Your task to perform on an android device: open app "NewsBreak: Local News & Alerts" (install if not already installed) and go to login screen Image 0: 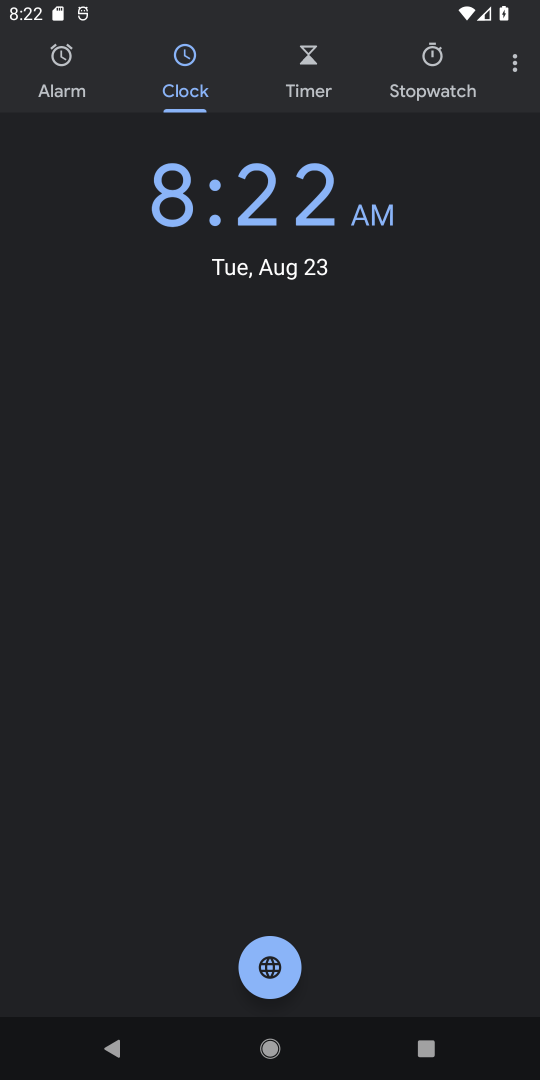
Step 0: press home button
Your task to perform on an android device: open app "NewsBreak: Local News & Alerts" (install if not already installed) and go to login screen Image 1: 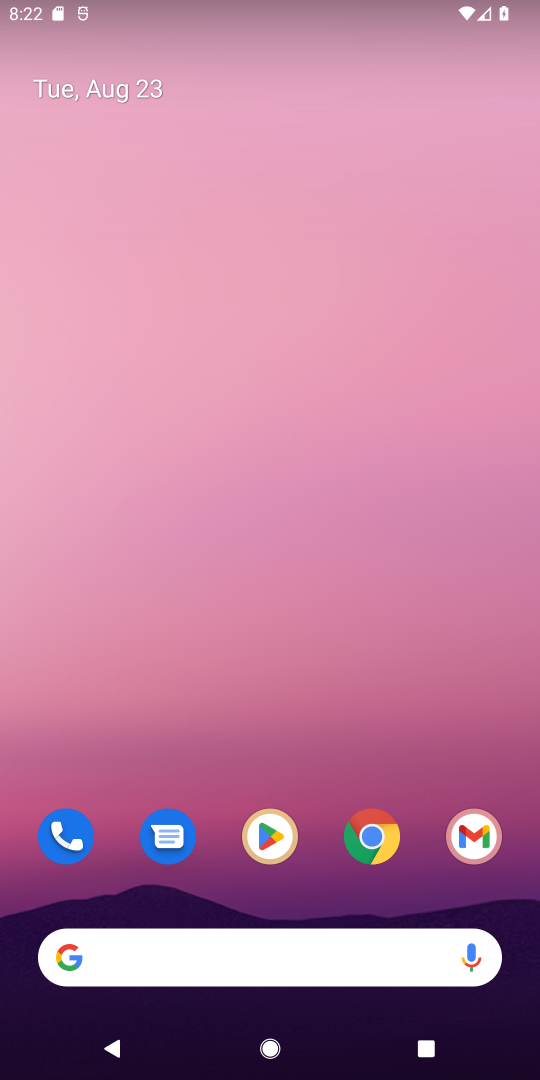
Step 1: click (265, 827)
Your task to perform on an android device: open app "NewsBreak: Local News & Alerts" (install if not already installed) and go to login screen Image 2: 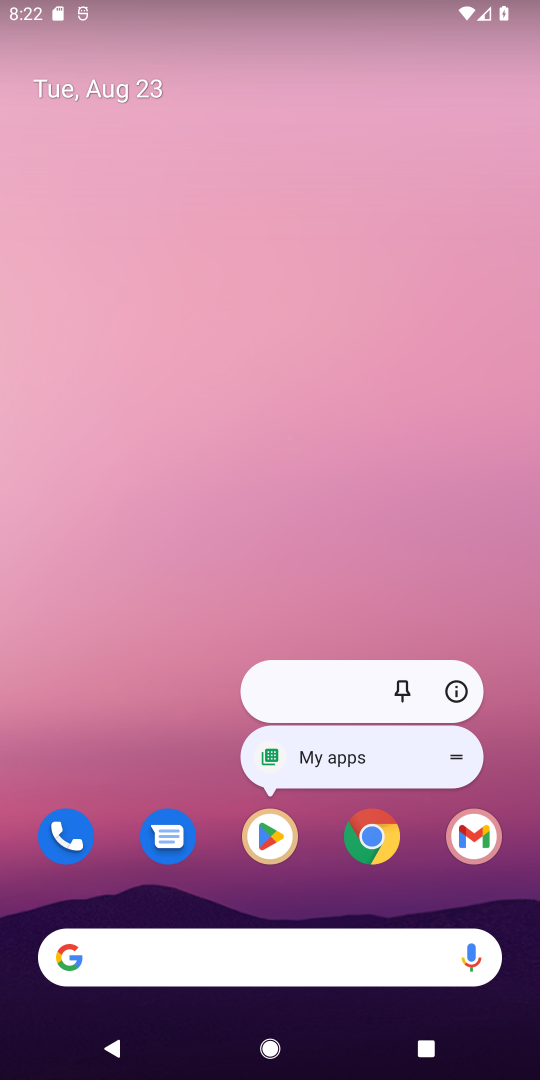
Step 2: click (265, 835)
Your task to perform on an android device: open app "NewsBreak: Local News & Alerts" (install if not already installed) and go to login screen Image 3: 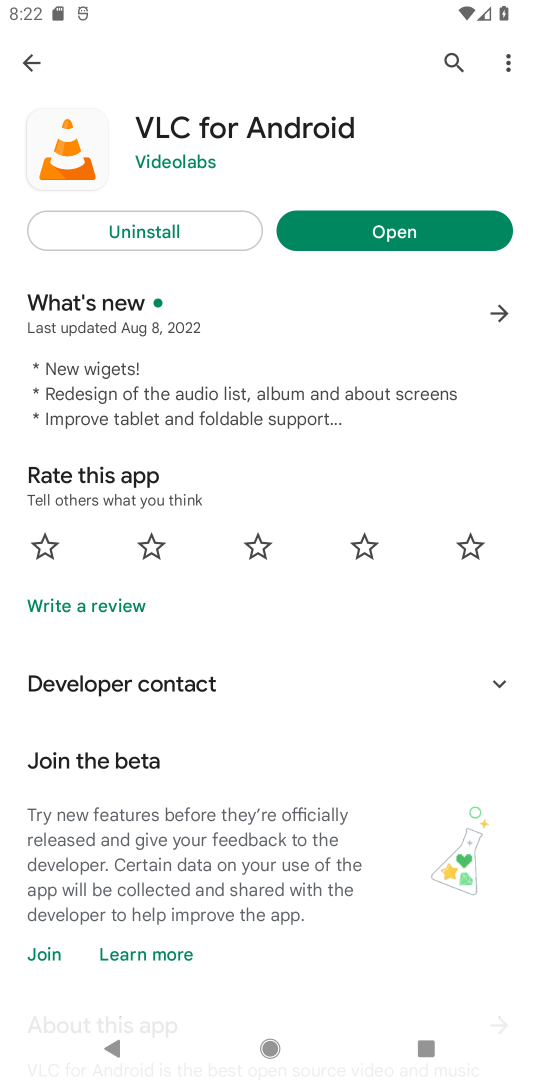
Step 3: click (448, 48)
Your task to perform on an android device: open app "NewsBreak: Local News & Alerts" (install if not already installed) and go to login screen Image 4: 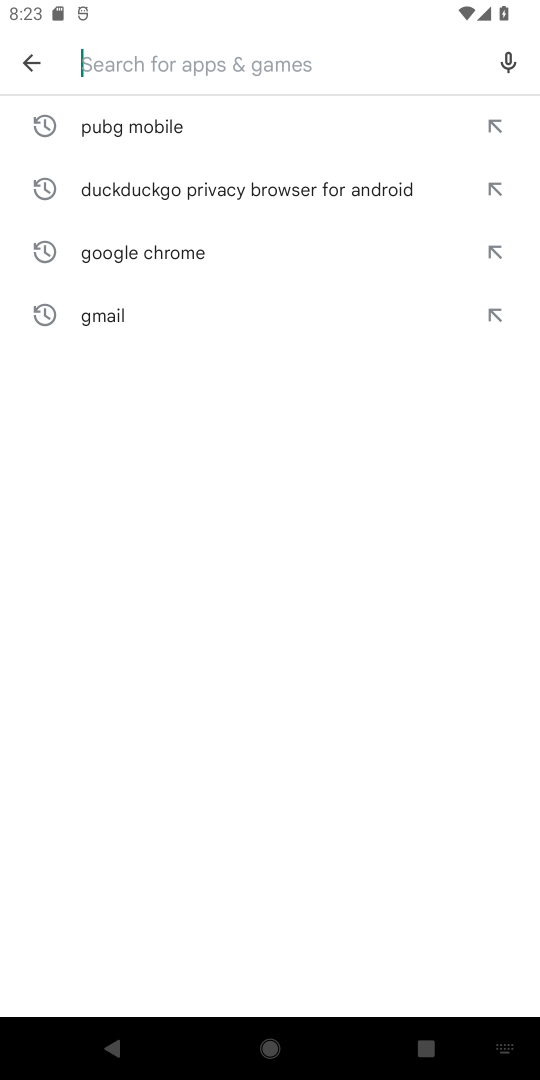
Step 4: type "NewsBreak: Local News & Alerts"
Your task to perform on an android device: open app "NewsBreak: Local News & Alerts" (install if not already installed) and go to login screen Image 5: 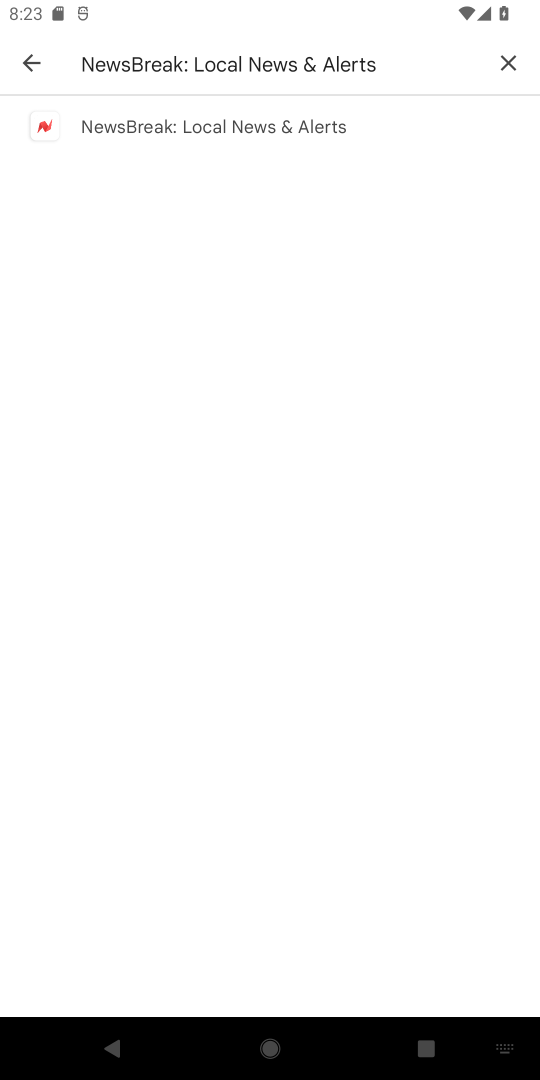
Step 5: click (204, 132)
Your task to perform on an android device: open app "NewsBreak: Local News & Alerts" (install if not already installed) and go to login screen Image 6: 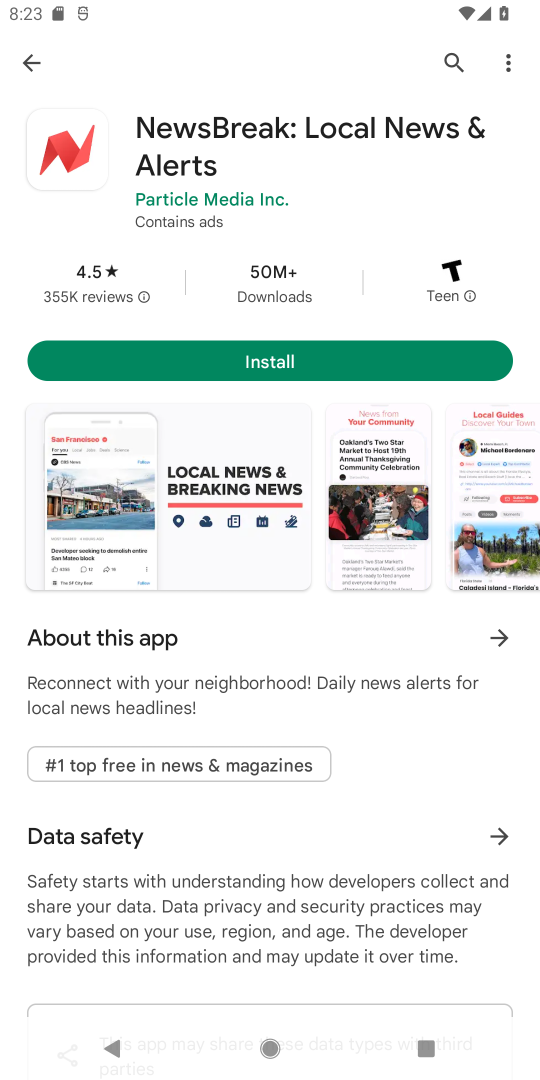
Step 6: click (284, 365)
Your task to perform on an android device: open app "NewsBreak: Local News & Alerts" (install if not already installed) and go to login screen Image 7: 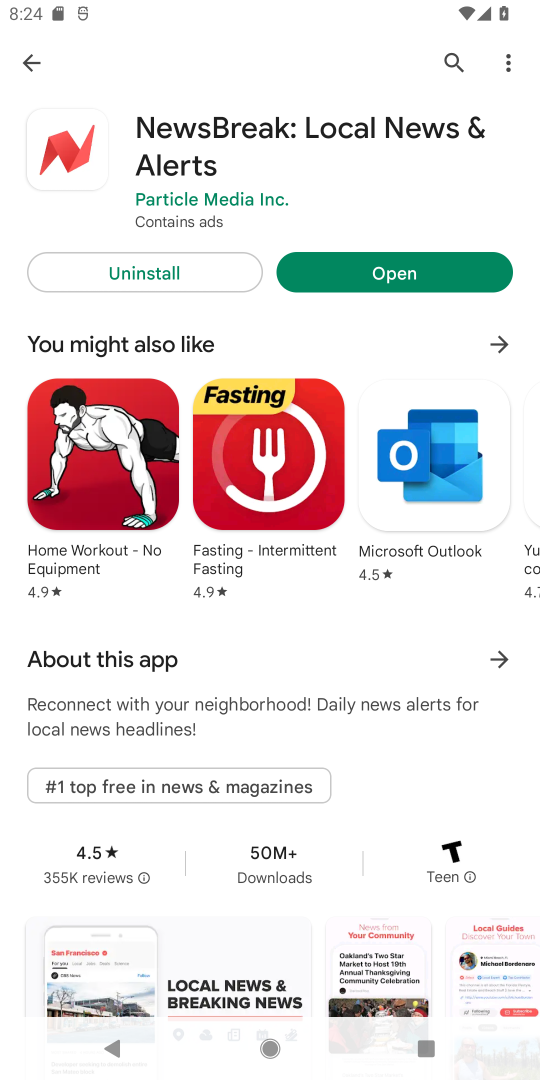
Step 7: click (463, 284)
Your task to perform on an android device: open app "NewsBreak: Local News & Alerts" (install if not already installed) and go to login screen Image 8: 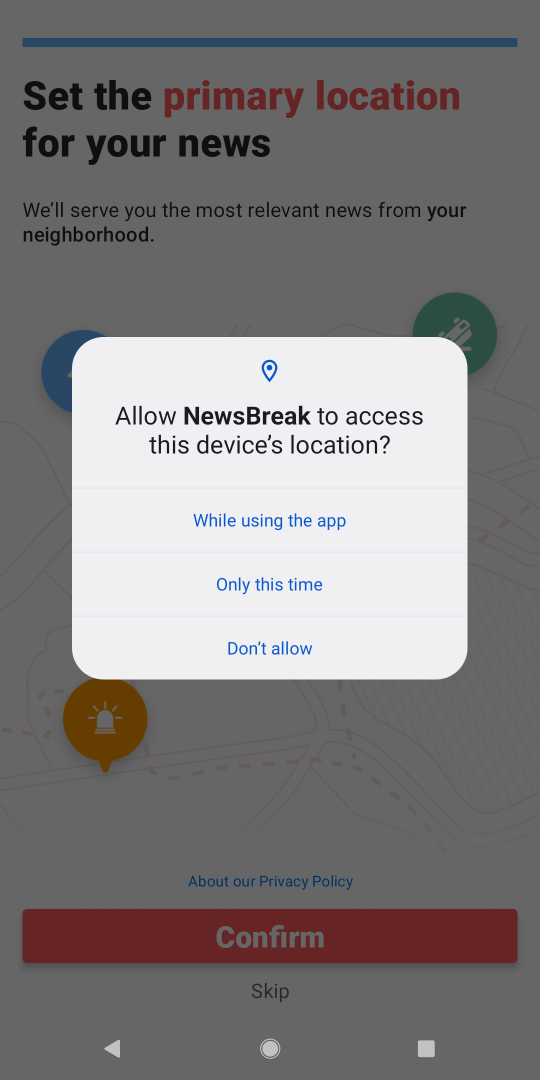
Step 8: click (277, 591)
Your task to perform on an android device: open app "NewsBreak: Local News & Alerts" (install if not already installed) and go to login screen Image 9: 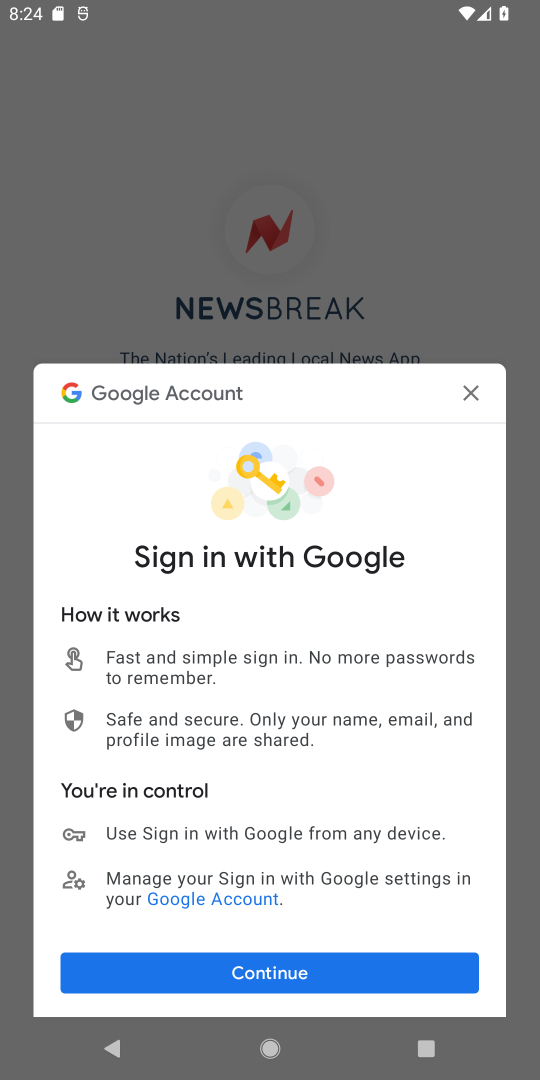
Step 9: task complete